Your task to perform on an android device: Show the shopping cart on ebay.com. Image 0: 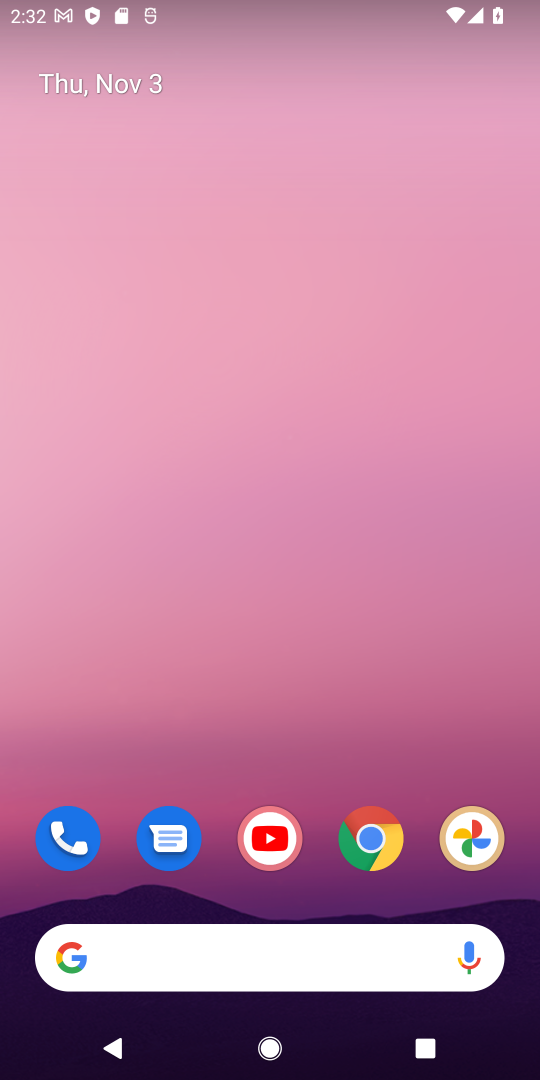
Step 0: drag from (296, 906) to (405, 169)
Your task to perform on an android device: Show the shopping cart on ebay.com. Image 1: 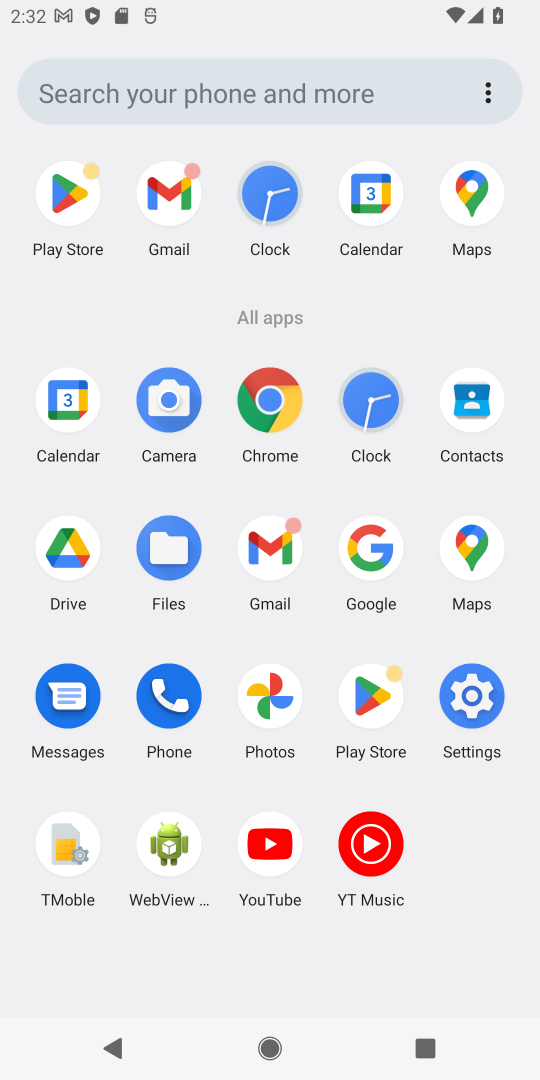
Step 1: click (262, 399)
Your task to perform on an android device: Show the shopping cart on ebay.com. Image 2: 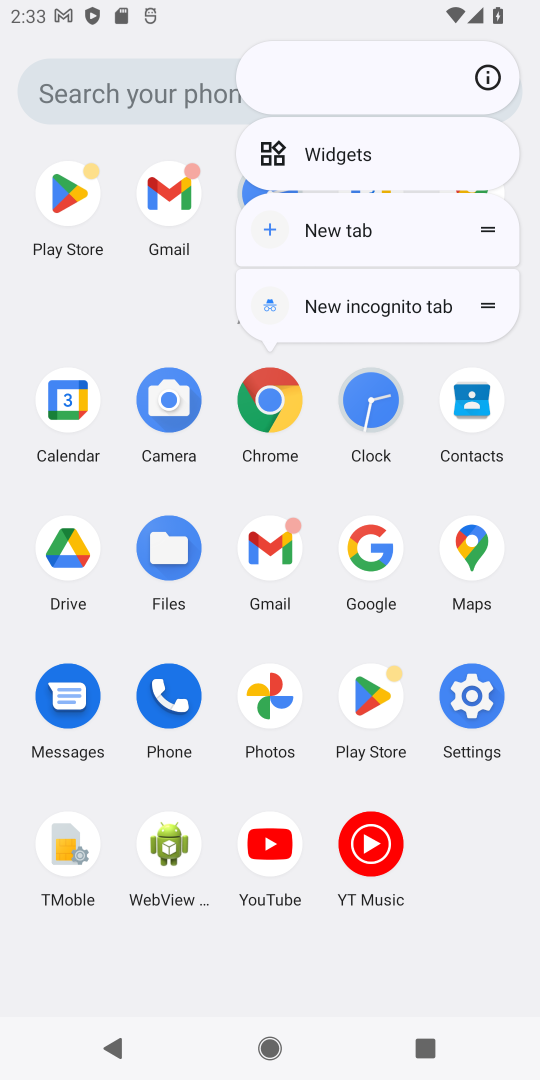
Step 2: click (267, 396)
Your task to perform on an android device: Show the shopping cart on ebay.com. Image 3: 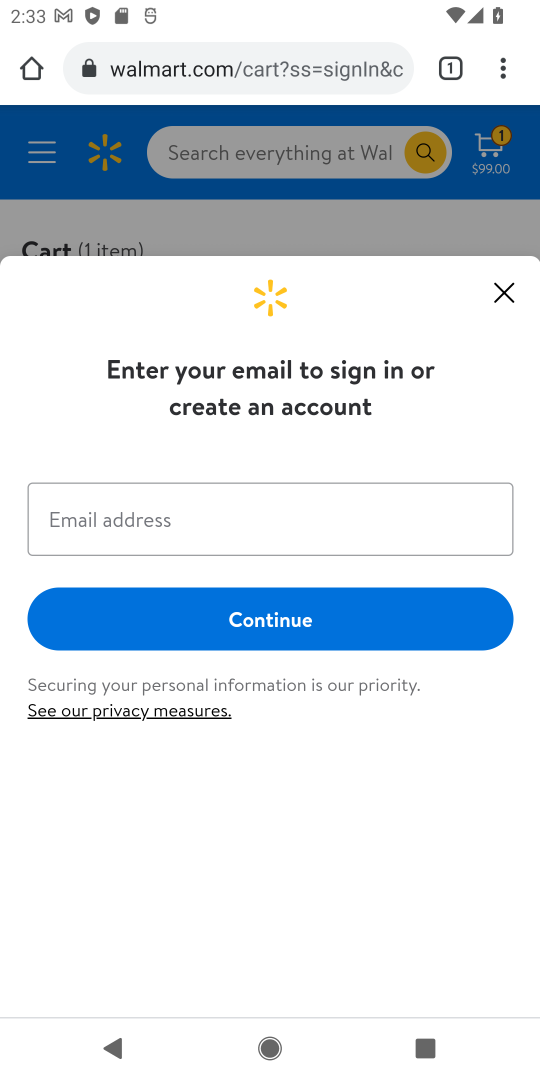
Step 3: click (319, 63)
Your task to perform on an android device: Show the shopping cart on ebay.com. Image 4: 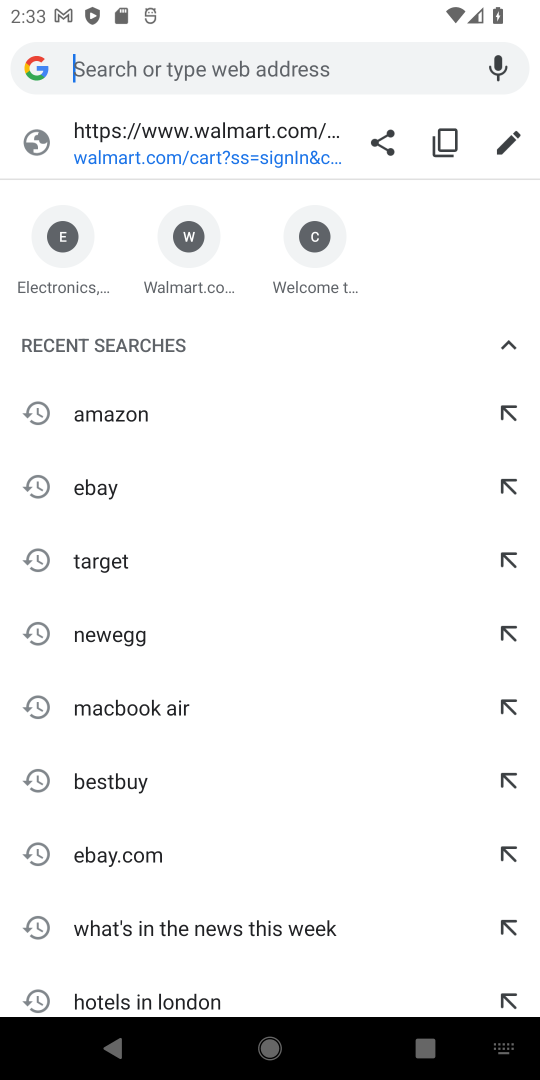
Step 4: type "ebay.com"
Your task to perform on an android device: Show the shopping cart on ebay.com. Image 5: 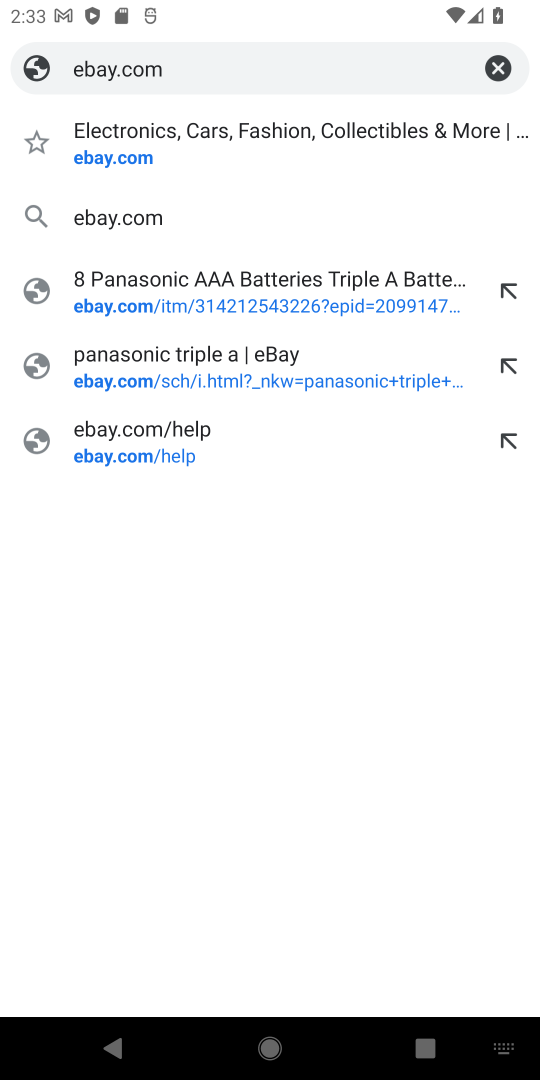
Step 5: press enter
Your task to perform on an android device: Show the shopping cart on ebay.com. Image 6: 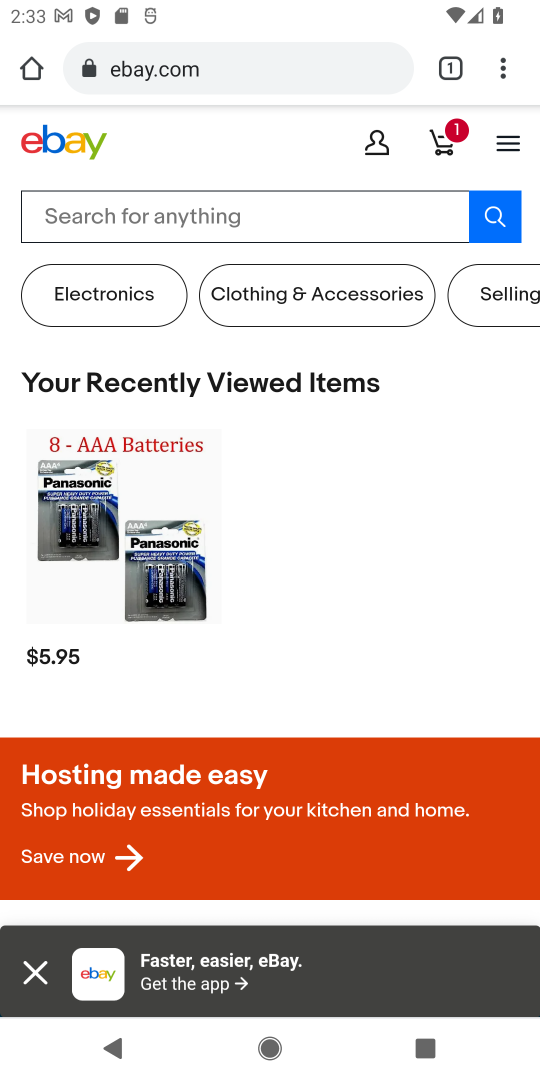
Step 6: click (444, 143)
Your task to perform on an android device: Show the shopping cart on ebay.com. Image 7: 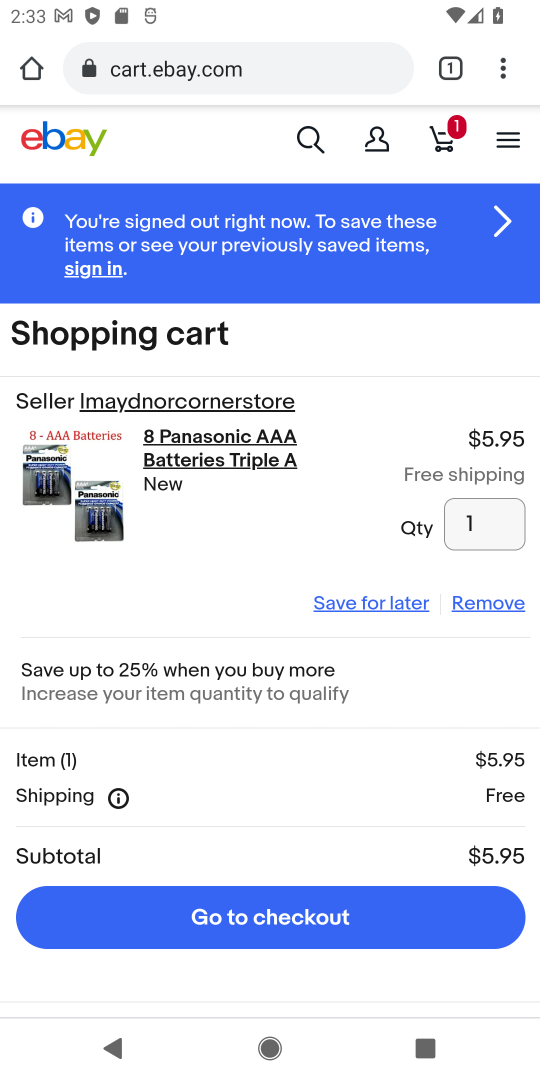
Step 7: task complete